Your task to perform on an android device: manage bookmarks in the chrome app Image 0: 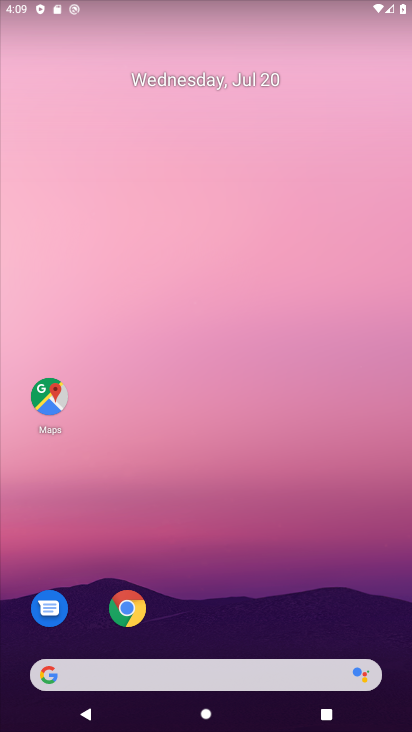
Step 0: drag from (199, 617) to (212, 287)
Your task to perform on an android device: manage bookmarks in the chrome app Image 1: 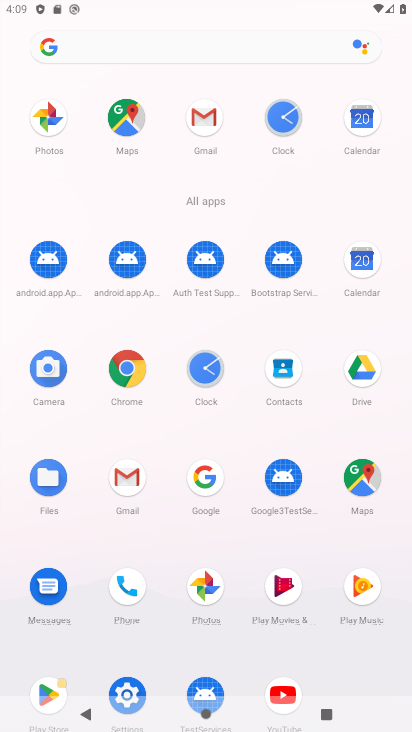
Step 1: click (131, 371)
Your task to perform on an android device: manage bookmarks in the chrome app Image 2: 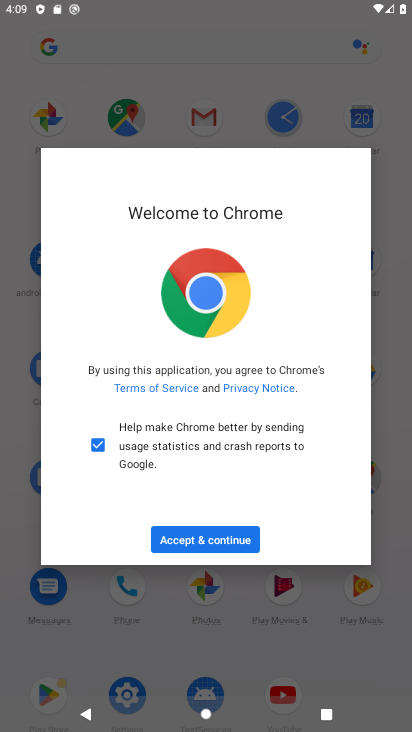
Step 2: click (217, 545)
Your task to perform on an android device: manage bookmarks in the chrome app Image 3: 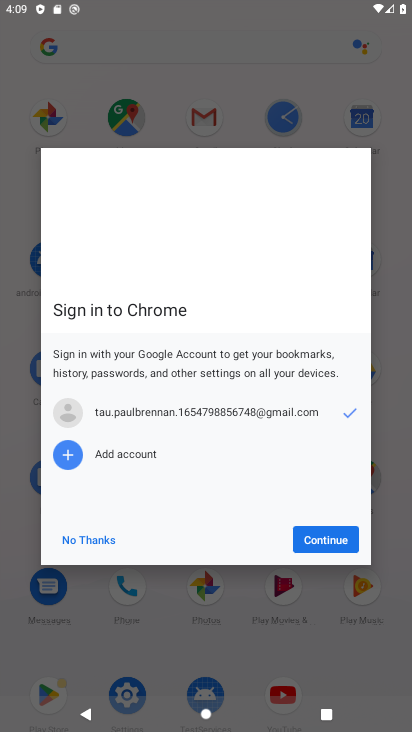
Step 3: click (324, 547)
Your task to perform on an android device: manage bookmarks in the chrome app Image 4: 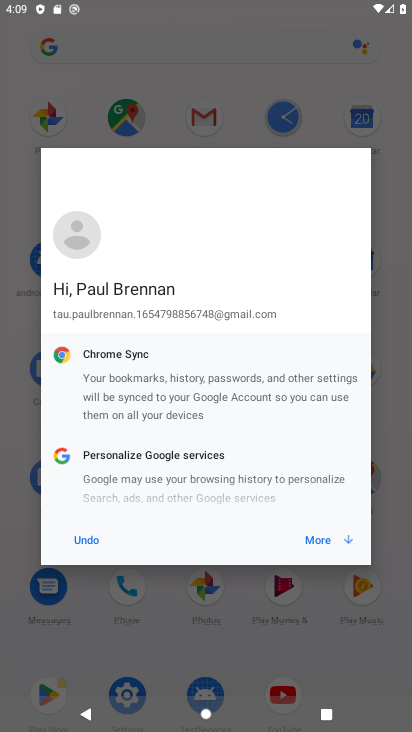
Step 4: click (324, 547)
Your task to perform on an android device: manage bookmarks in the chrome app Image 5: 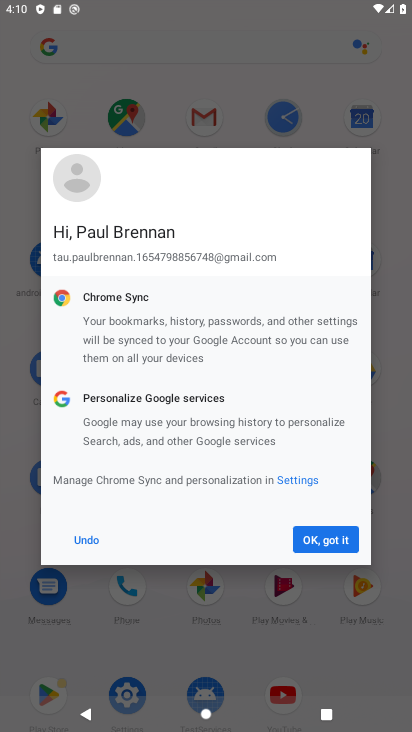
Step 5: click (324, 547)
Your task to perform on an android device: manage bookmarks in the chrome app Image 6: 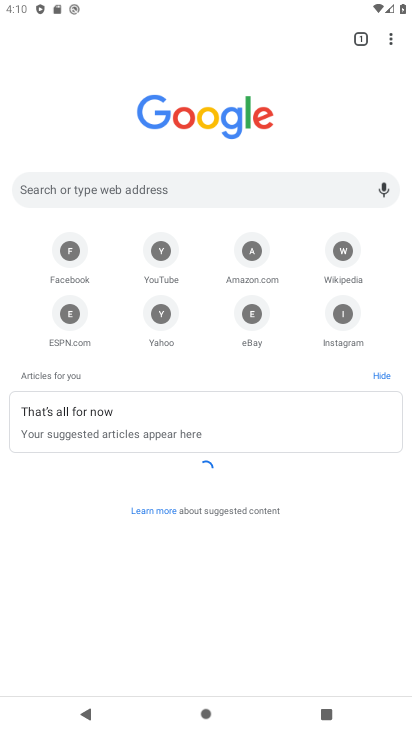
Step 6: task complete